Your task to perform on an android device: Go to ESPN.com Image 0: 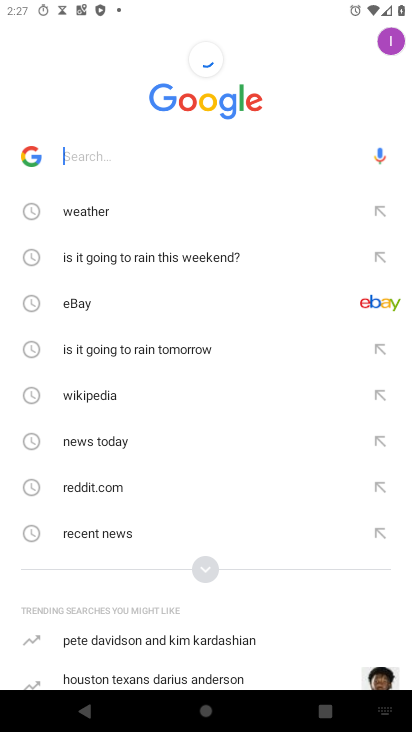
Step 0: press home button
Your task to perform on an android device: Go to ESPN.com Image 1: 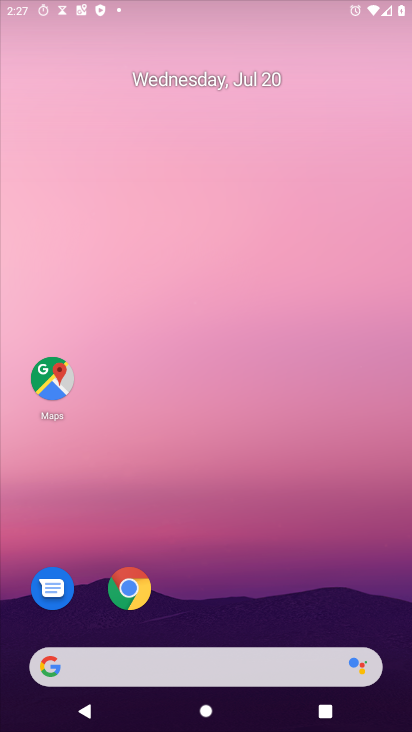
Step 1: drag from (302, 608) to (375, 5)
Your task to perform on an android device: Go to ESPN.com Image 2: 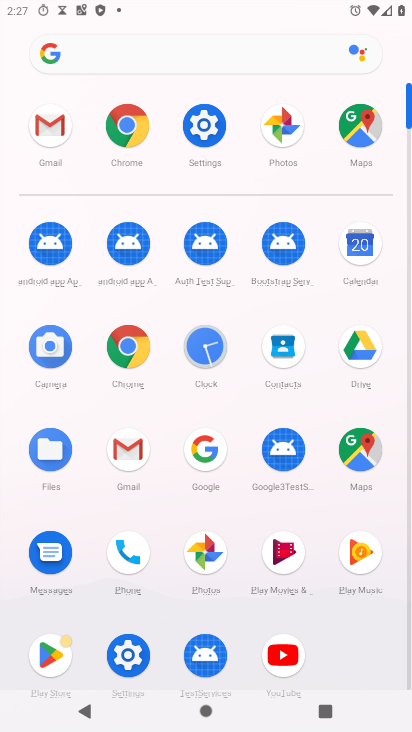
Step 2: click (138, 343)
Your task to perform on an android device: Go to ESPN.com Image 3: 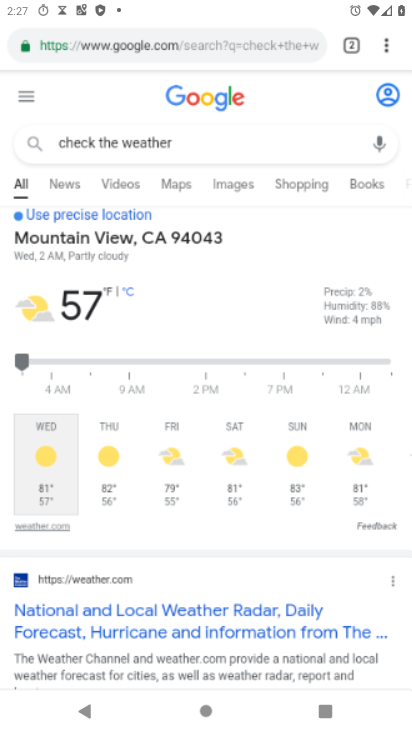
Step 3: click (223, 51)
Your task to perform on an android device: Go to ESPN.com Image 4: 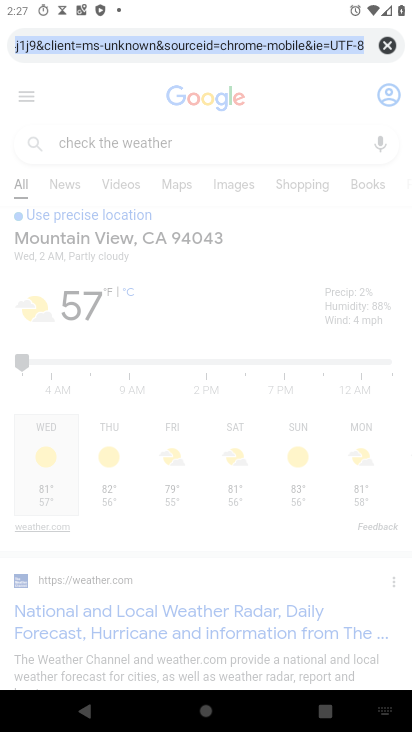
Step 4: type "espn.com"
Your task to perform on an android device: Go to ESPN.com Image 5: 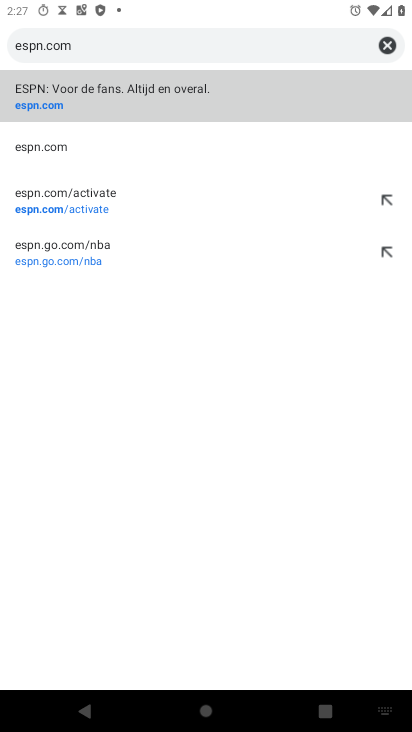
Step 5: click (77, 79)
Your task to perform on an android device: Go to ESPN.com Image 6: 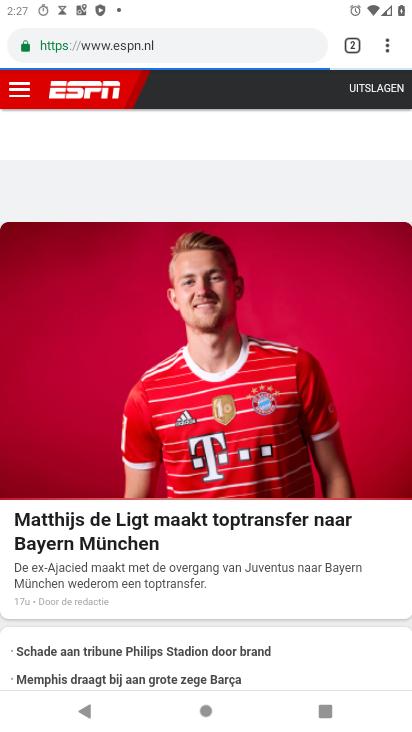
Step 6: task complete